Your task to perform on an android device: open a bookmark in the chrome app Image 0: 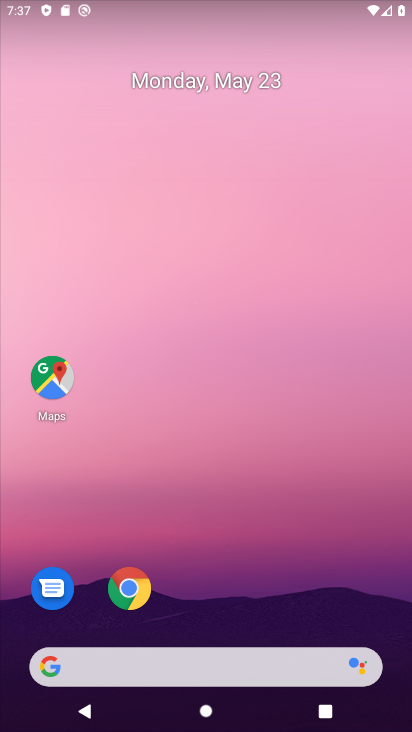
Step 0: click (136, 589)
Your task to perform on an android device: open a bookmark in the chrome app Image 1: 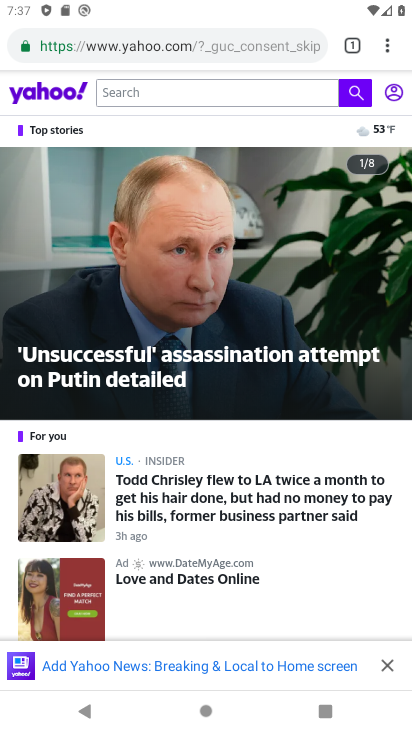
Step 1: click (384, 41)
Your task to perform on an android device: open a bookmark in the chrome app Image 2: 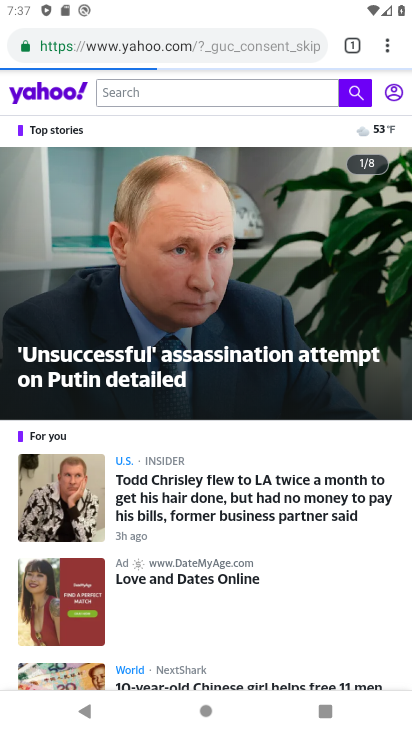
Step 2: click (384, 41)
Your task to perform on an android device: open a bookmark in the chrome app Image 3: 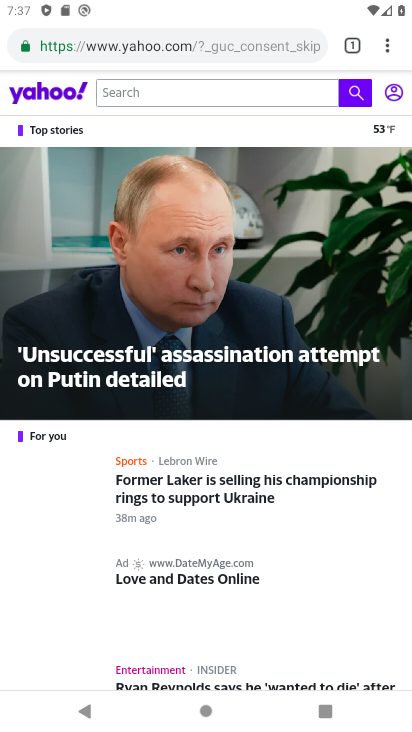
Step 3: click (386, 45)
Your task to perform on an android device: open a bookmark in the chrome app Image 4: 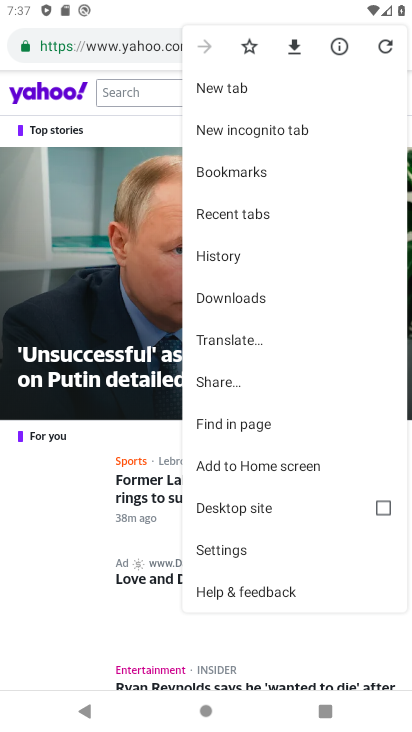
Step 4: click (228, 171)
Your task to perform on an android device: open a bookmark in the chrome app Image 5: 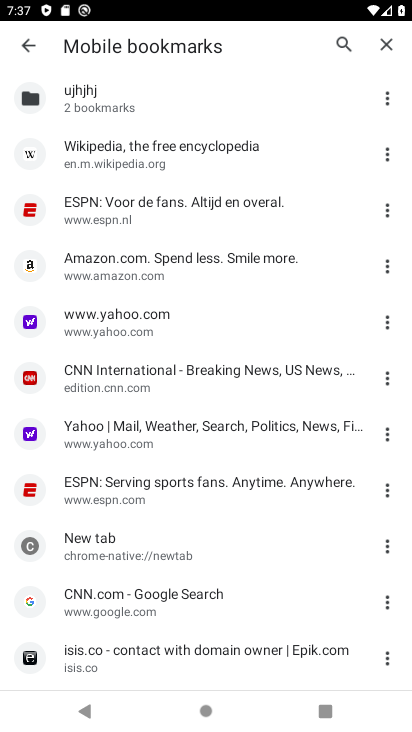
Step 5: click (108, 263)
Your task to perform on an android device: open a bookmark in the chrome app Image 6: 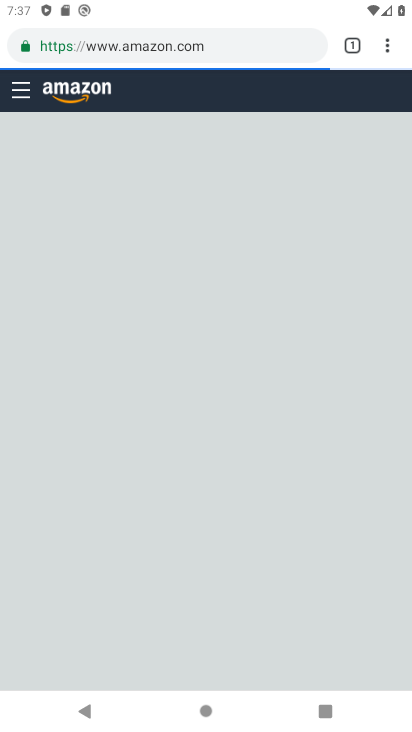
Step 6: task complete